Your task to perform on an android device: uninstall "ZOOM Cloud Meetings" Image 0: 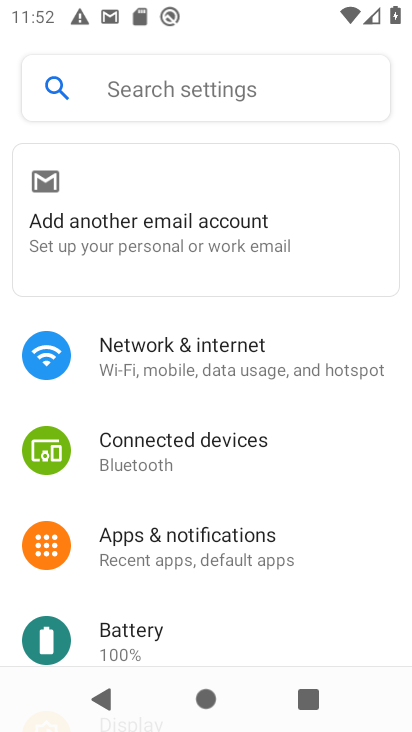
Step 0: press home button
Your task to perform on an android device: uninstall "ZOOM Cloud Meetings" Image 1: 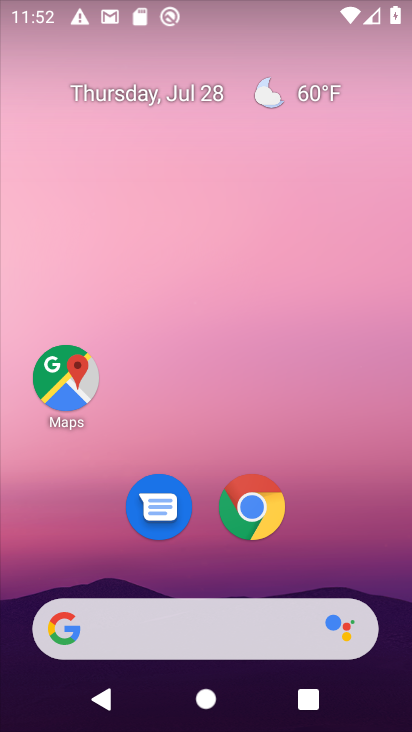
Step 1: drag from (201, 540) to (209, 82)
Your task to perform on an android device: uninstall "ZOOM Cloud Meetings" Image 2: 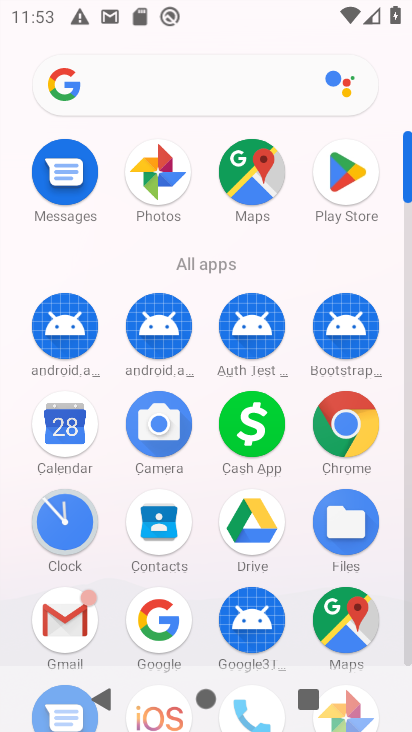
Step 2: click (357, 191)
Your task to perform on an android device: uninstall "ZOOM Cloud Meetings" Image 3: 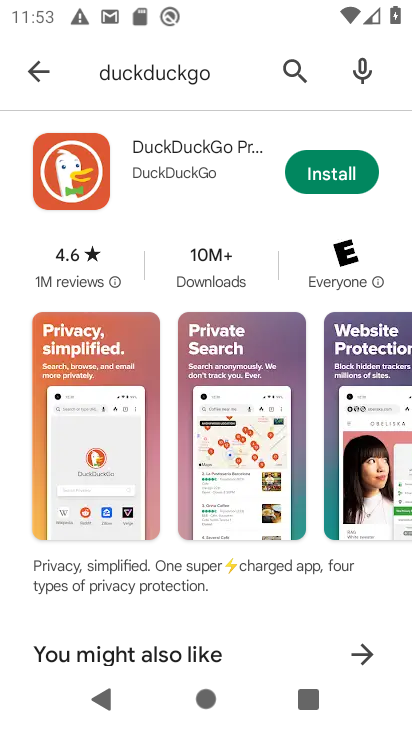
Step 3: click (192, 75)
Your task to perform on an android device: uninstall "ZOOM Cloud Meetings" Image 4: 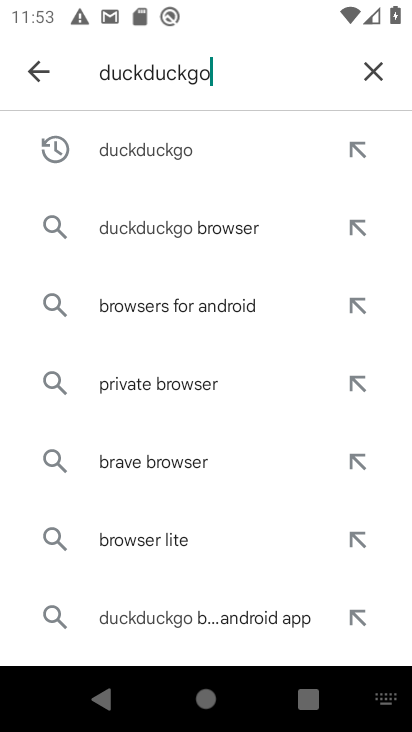
Step 4: click (374, 78)
Your task to perform on an android device: uninstall "ZOOM Cloud Meetings" Image 5: 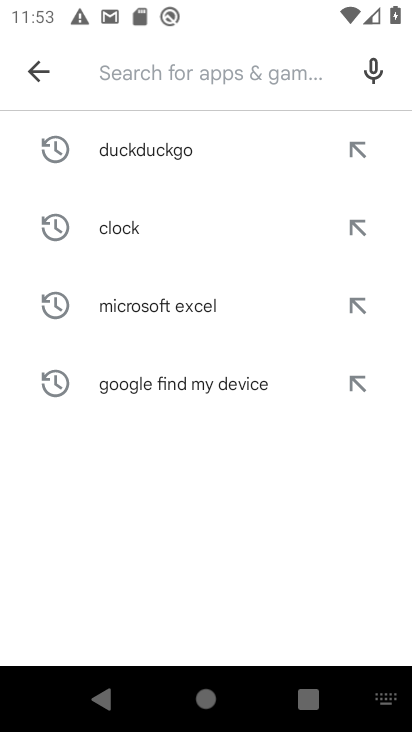
Step 5: type "zoom cloud meeting"
Your task to perform on an android device: uninstall "ZOOM Cloud Meetings" Image 6: 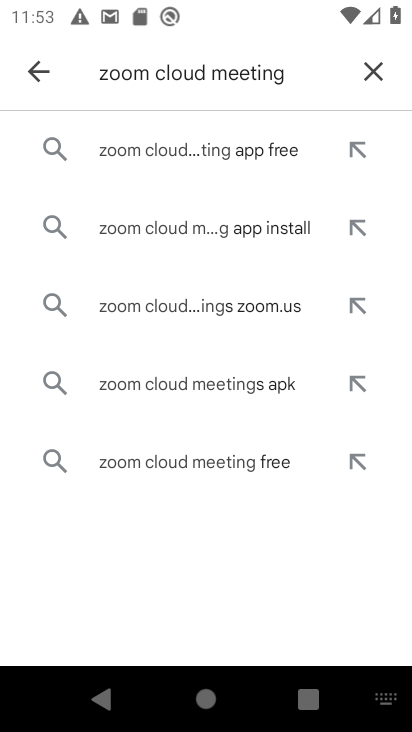
Step 6: click (122, 148)
Your task to perform on an android device: uninstall "ZOOM Cloud Meetings" Image 7: 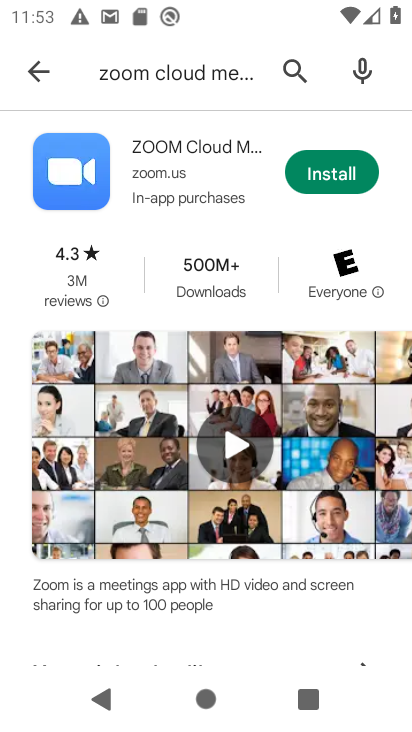
Step 7: task complete